Your task to perform on an android device: Open location settings Image 0: 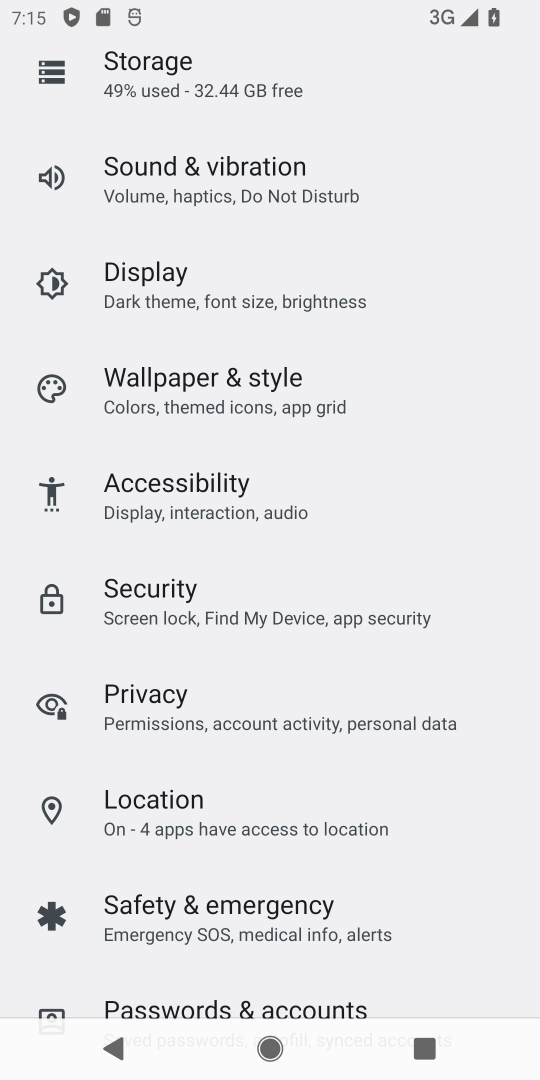
Step 0: click (218, 787)
Your task to perform on an android device: Open location settings Image 1: 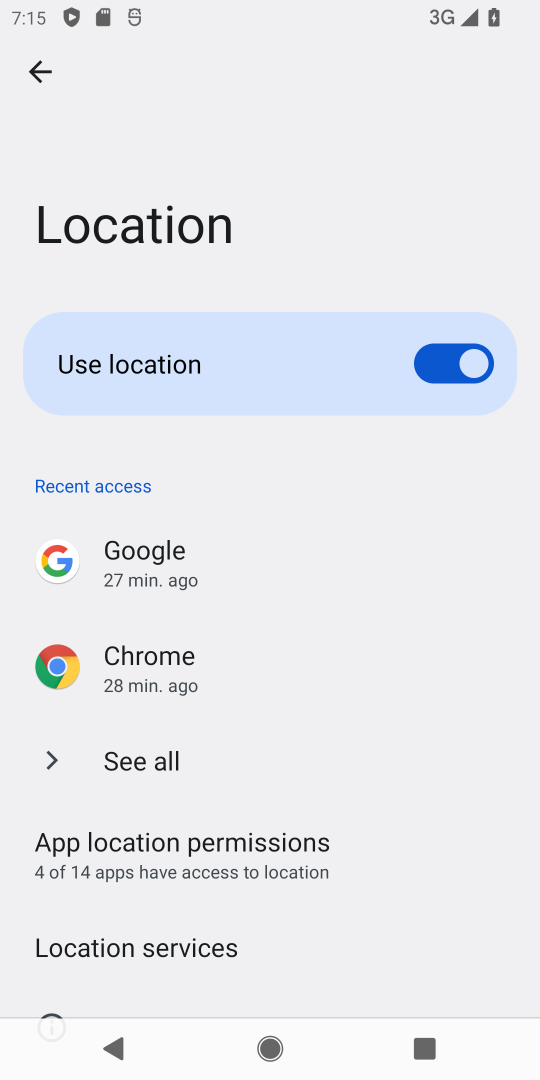
Step 1: task complete